Your task to perform on an android device: see sites visited before in the chrome app Image 0: 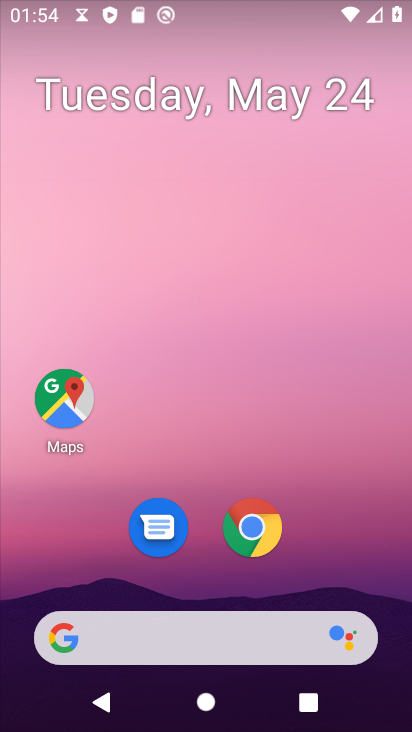
Step 0: press home button
Your task to perform on an android device: see sites visited before in the chrome app Image 1: 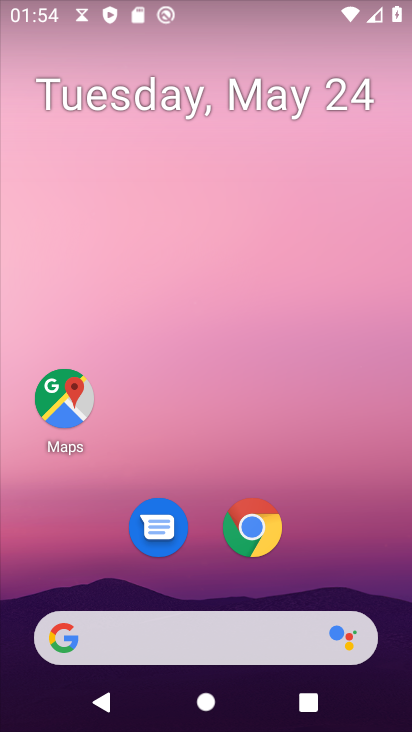
Step 1: click (256, 534)
Your task to perform on an android device: see sites visited before in the chrome app Image 2: 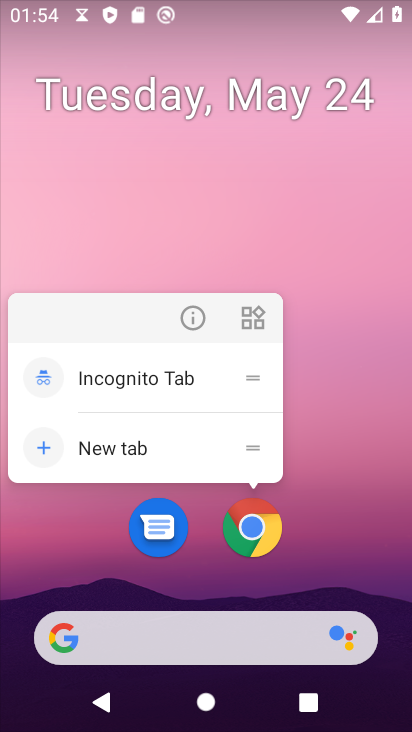
Step 2: click (263, 527)
Your task to perform on an android device: see sites visited before in the chrome app Image 3: 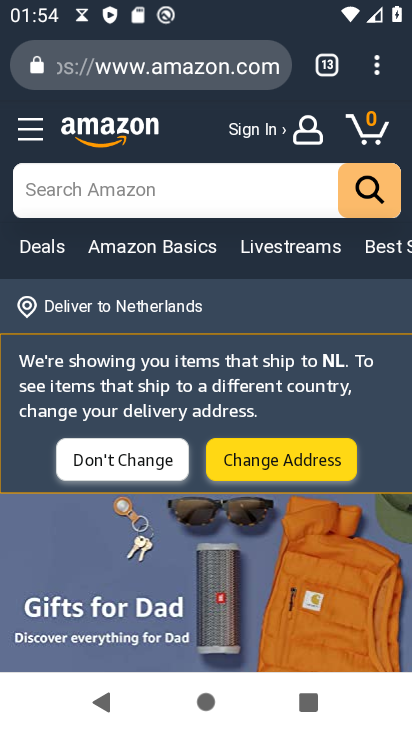
Step 3: task complete